Your task to perform on an android device: Go to Google Image 0: 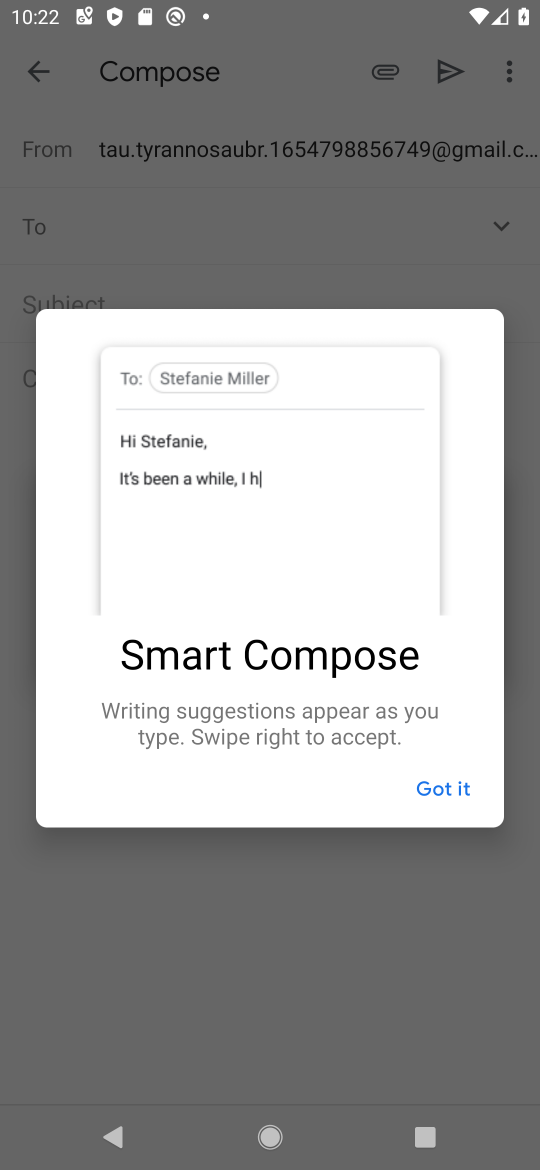
Step 0: press home button
Your task to perform on an android device: Go to Google Image 1: 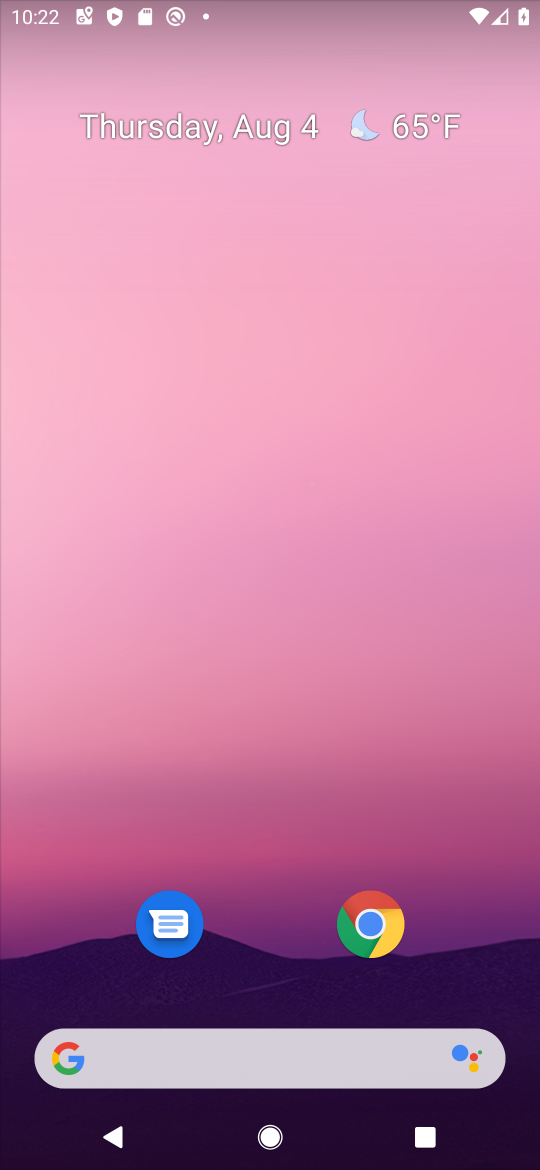
Step 1: click (289, 1054)
Your task to perform on an android device: Go to Google Image 2: 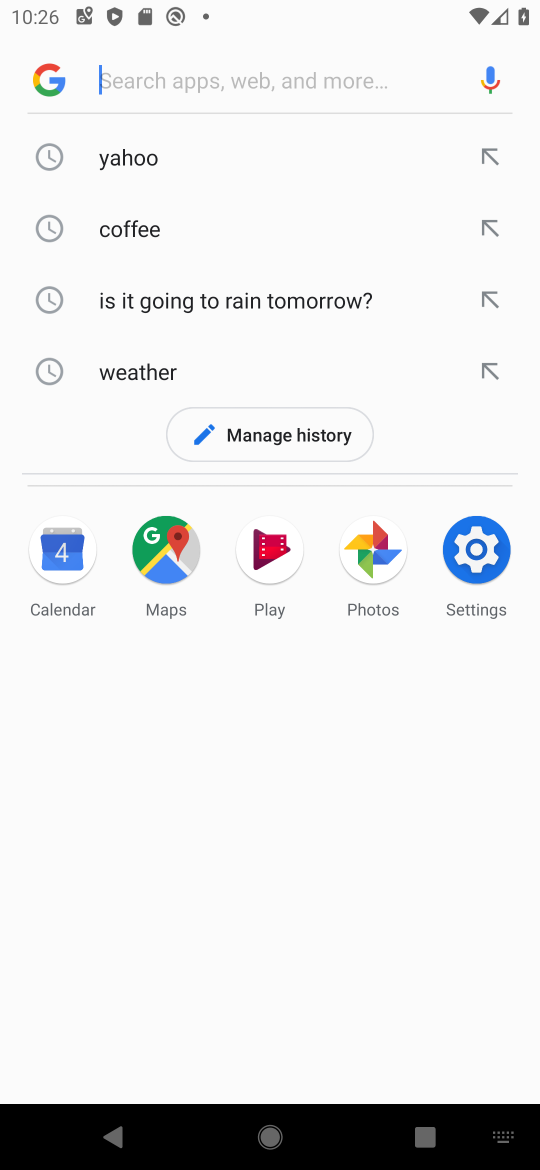
Step 2: task complete